Your task to perform on an android device: turn on location history Image 0: 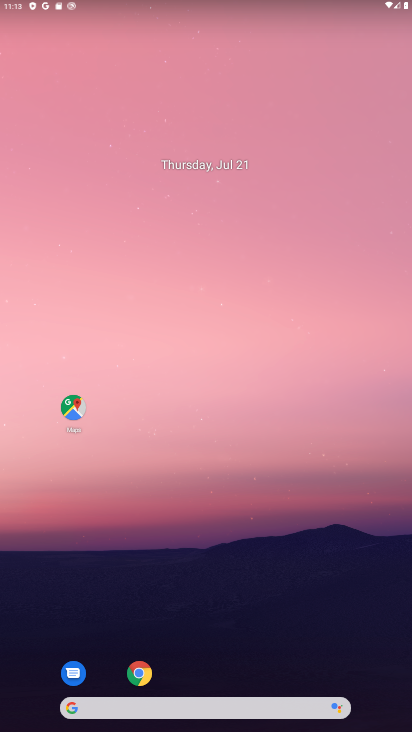
Step 0: press home button
Your task to perform on an android device: turn on location history Image 1: 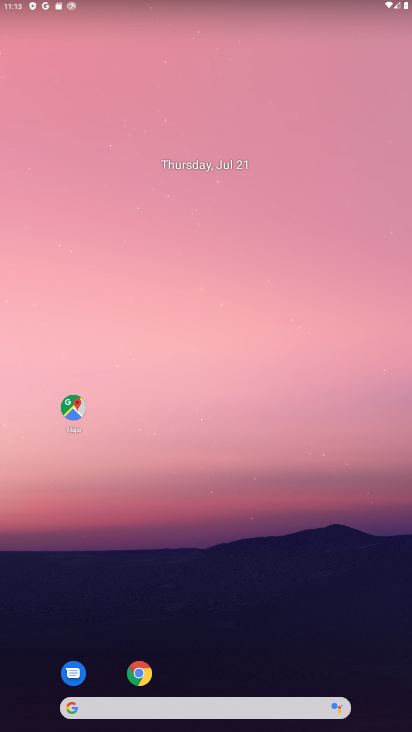
Step 1: drag from (218, 319) to (218, 62)
Your task to perform on an android device: turn on location history Image 2: 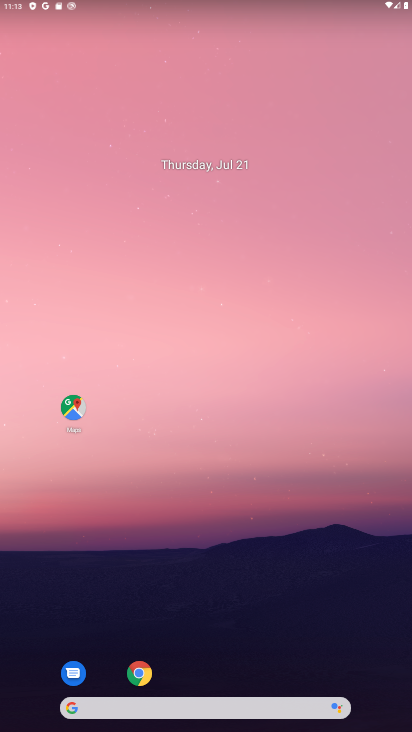
Step 2: drag from (212, 675) to (202, 0)
Your task to perform on an android device: turn on location history Image 3: 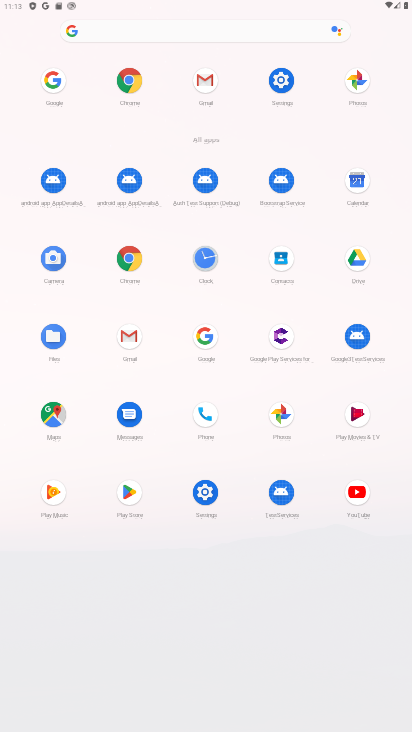
Step 3: click (280, 78)
Your task to perform on an android device: turn on location history Image 4: 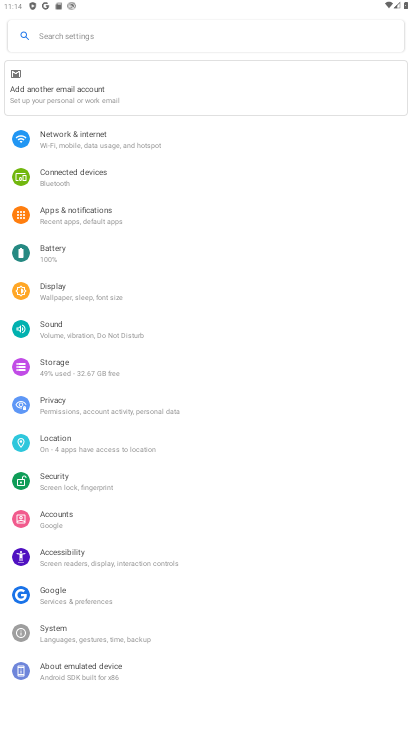
Step 4: click (73, 437)
Your task to perform on an android device: turn on location history Image 5: 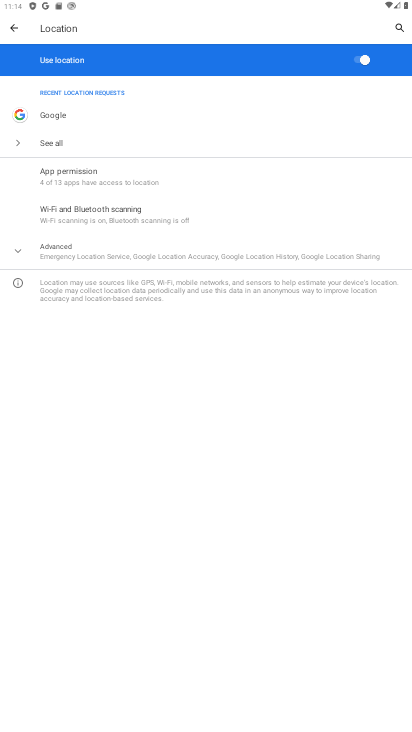
Step 5: click (20, 245)
Your task to perform on an android device: turn on location history Image 6: 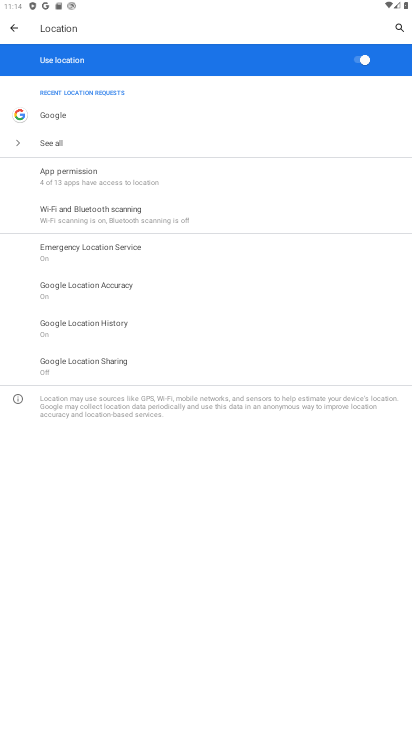
Step 6: click (111, 328)
Your task to perform on an android device: turn on location history Image 7: 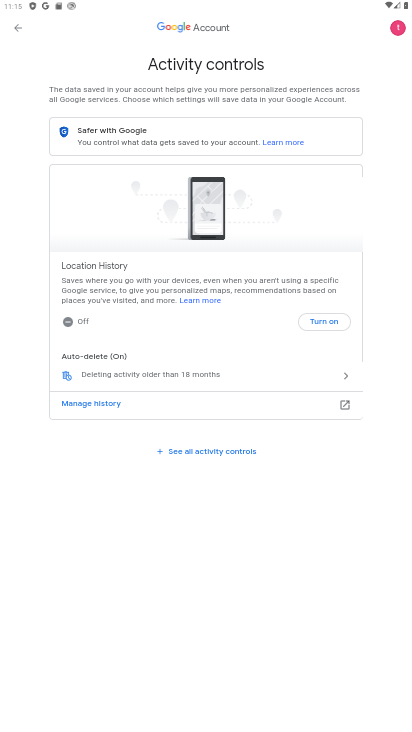
Step 7: click (318, 322)
Your task to perform on an android device: turn on location history Image 8: 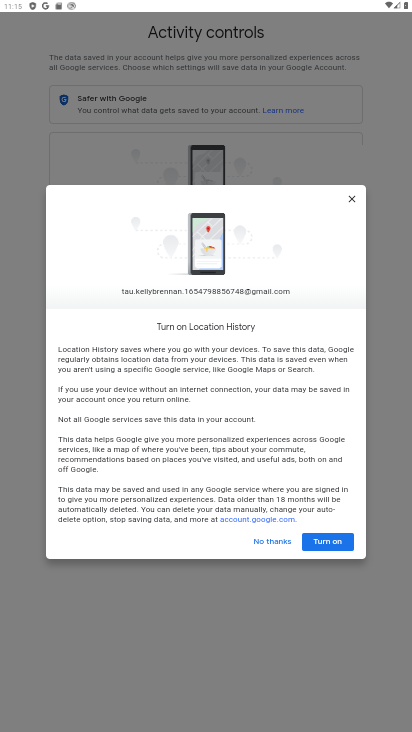
Step 8: click (336, 543)
Your task to perform on an android device: turn on location history Image 9: 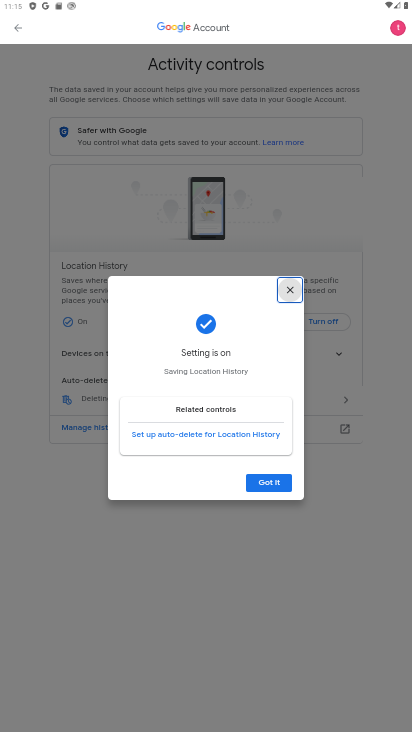
Step 9: click (269, 479)
Your task to perform on an android device: turn on location history Image 10: 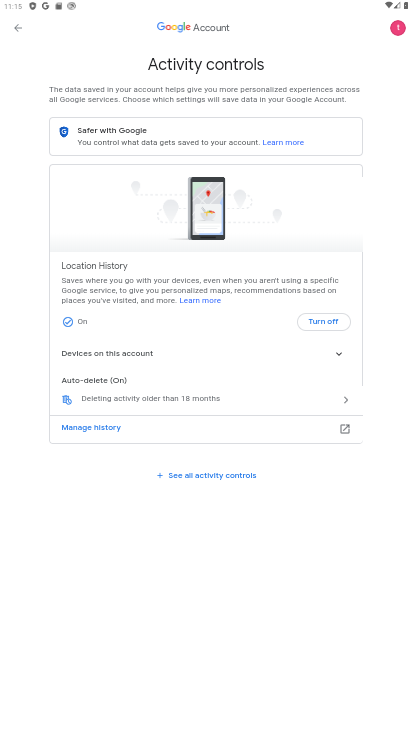
Step 10: task complete